Your task to perform on an android device: Open Google Maps Image 0: 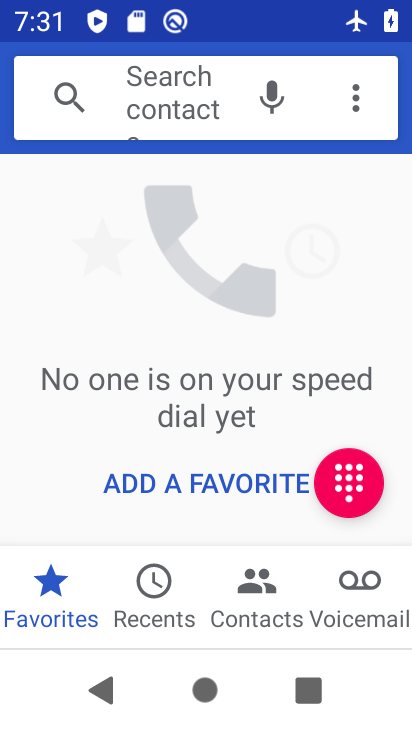
Step 0: press home button
Your task to perform on an android device: Open Google Maps Image 1: 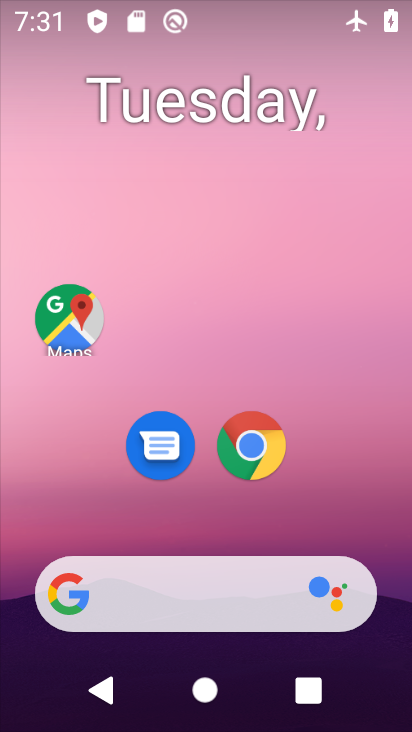
Step 1: click (53, 321)
Your task to perform on an android device: Open Google Maps Image 2: 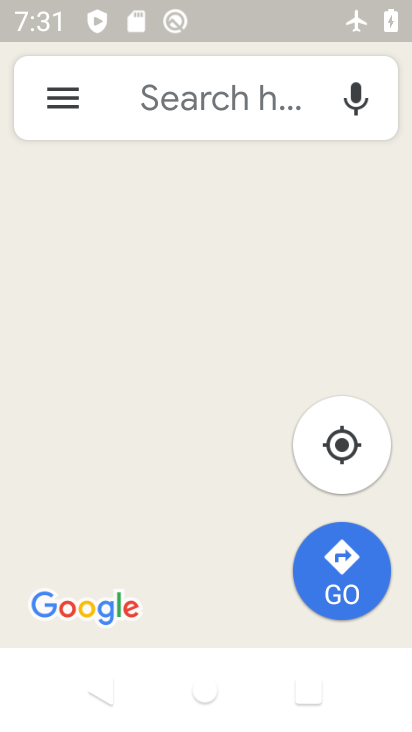
Step 2: task complete